Your task to perform on an android device: move an email to a new category in the gmail app Image 0: 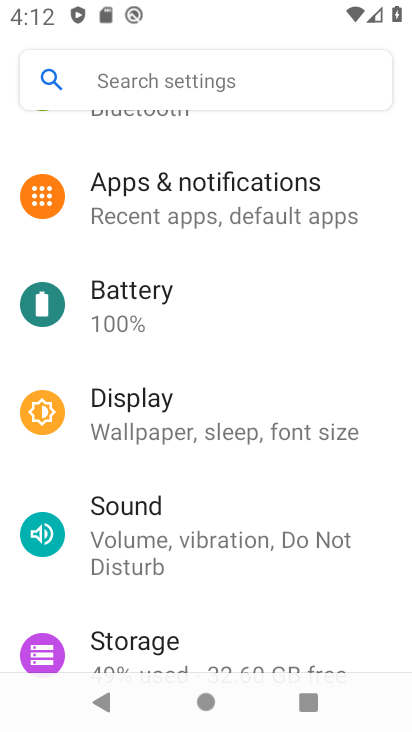
Step 0: press home button
Your task to perform on an android device: move an email to a new category in the gmail app Image 1: 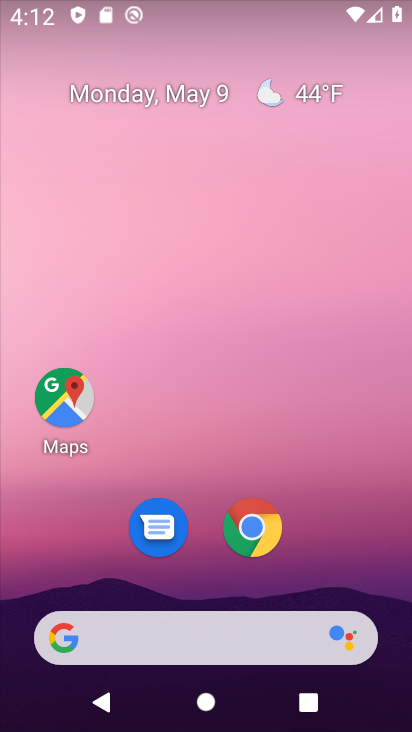
Step 1: drag from (192, 484) to (411, 181)
Your task to perform on an android device: move an email to a new category in the gmail app Image 2: 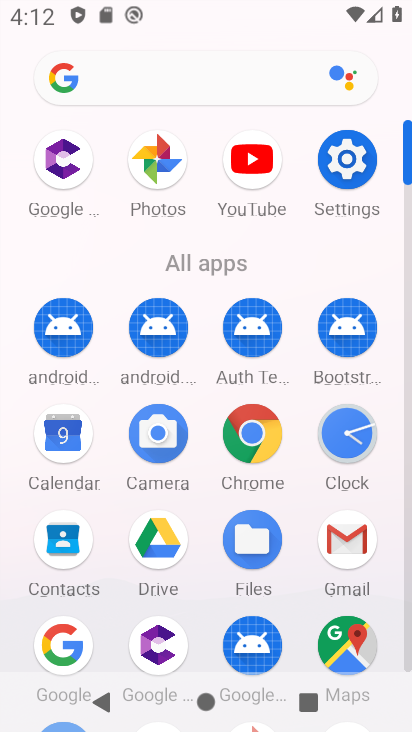
Step 2: click (337, 537)
Your task to perform on an android device: move an email to a new category in the gmail app Image 3: 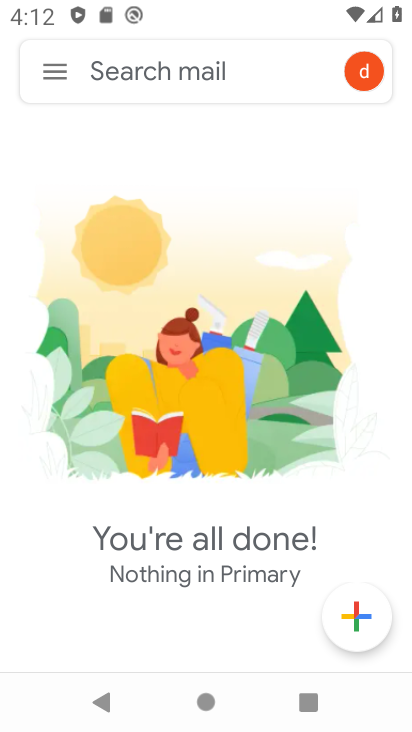
Step 3: task complete